Your task to perform on an android device: check battery use Image 0: 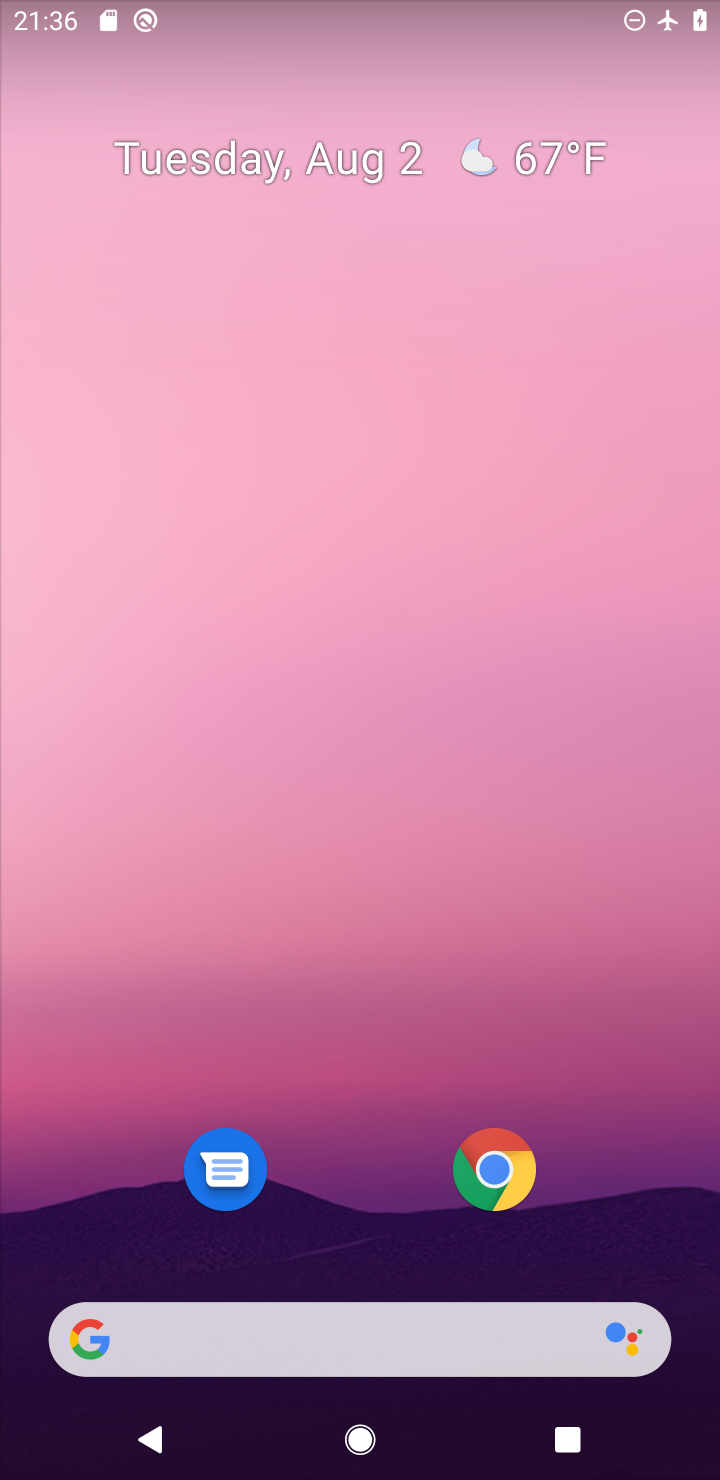
Step 0: drag from (352, 1269) to (367, 425)
Your task to perform on an android device: check battery use Image 1: 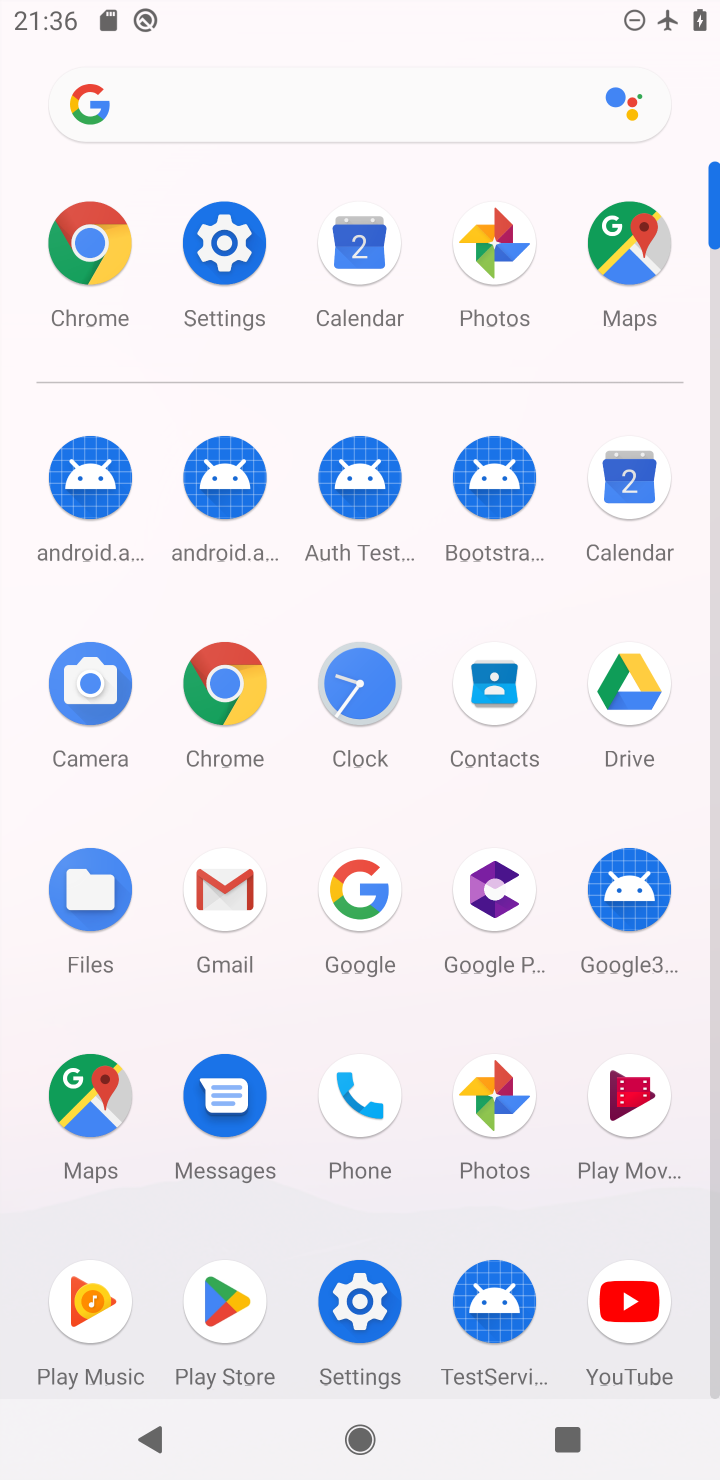
Step 1: click (218, 244)
Your task to perform on an android device: check battery use Image 2: 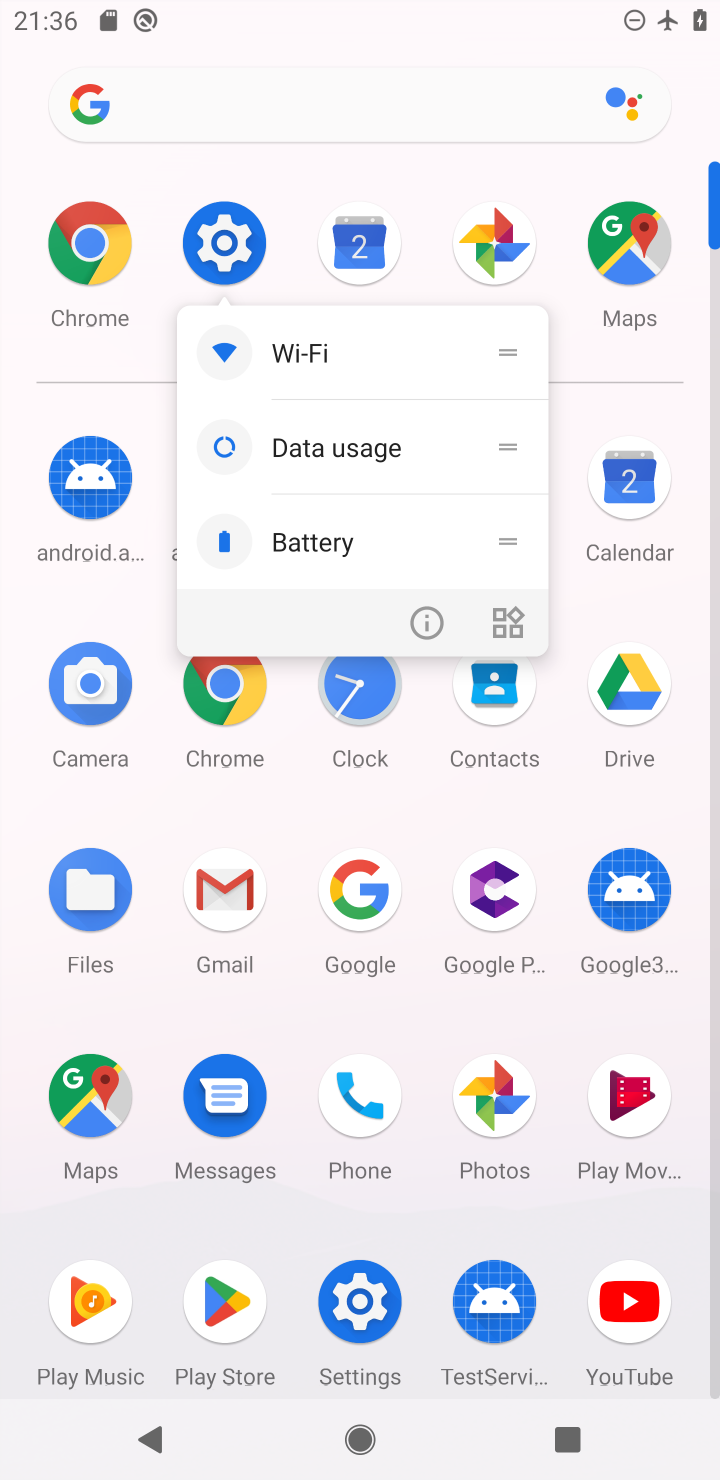
Step 2: click (218, 257)
Your task to perform on an android device: check battery use Image 3: 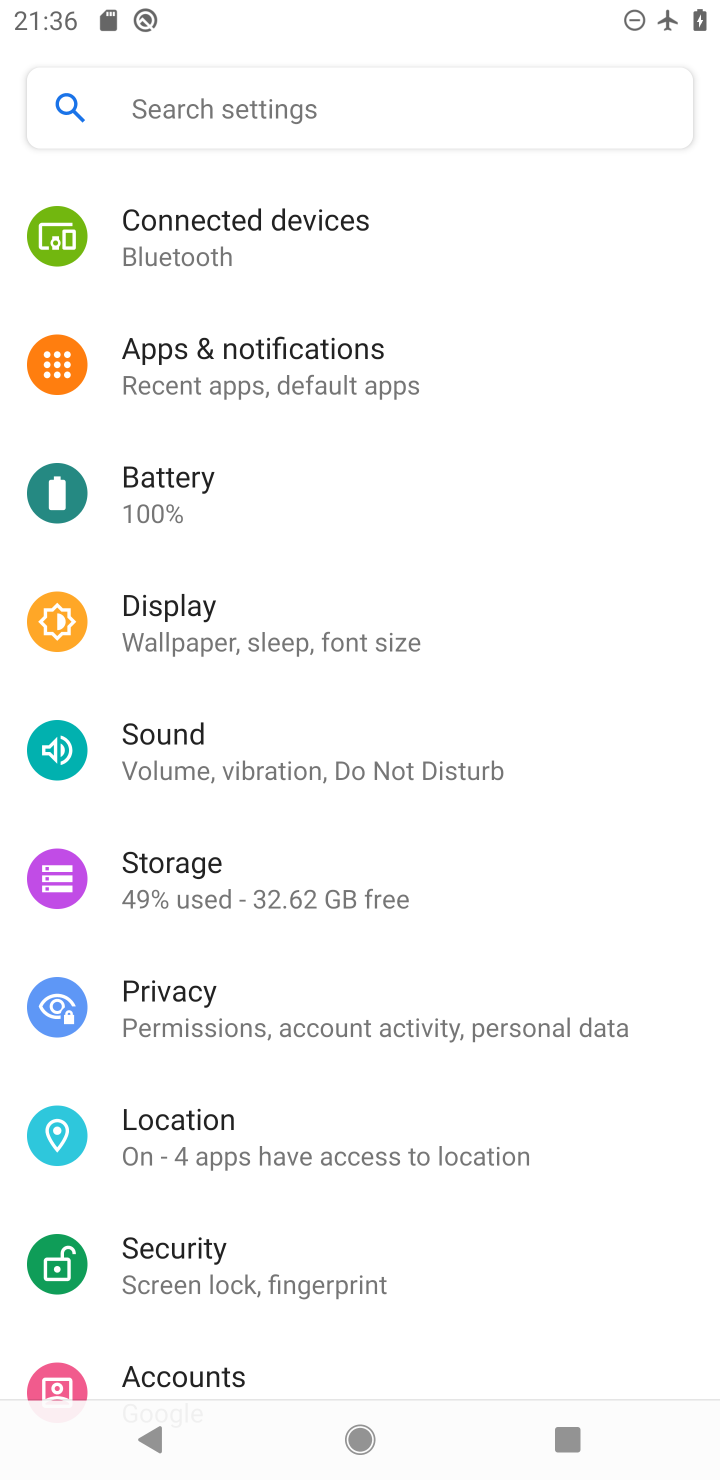
Step 3: click (145, 471)
Your task to perform on an android device: check battery use Image 4: 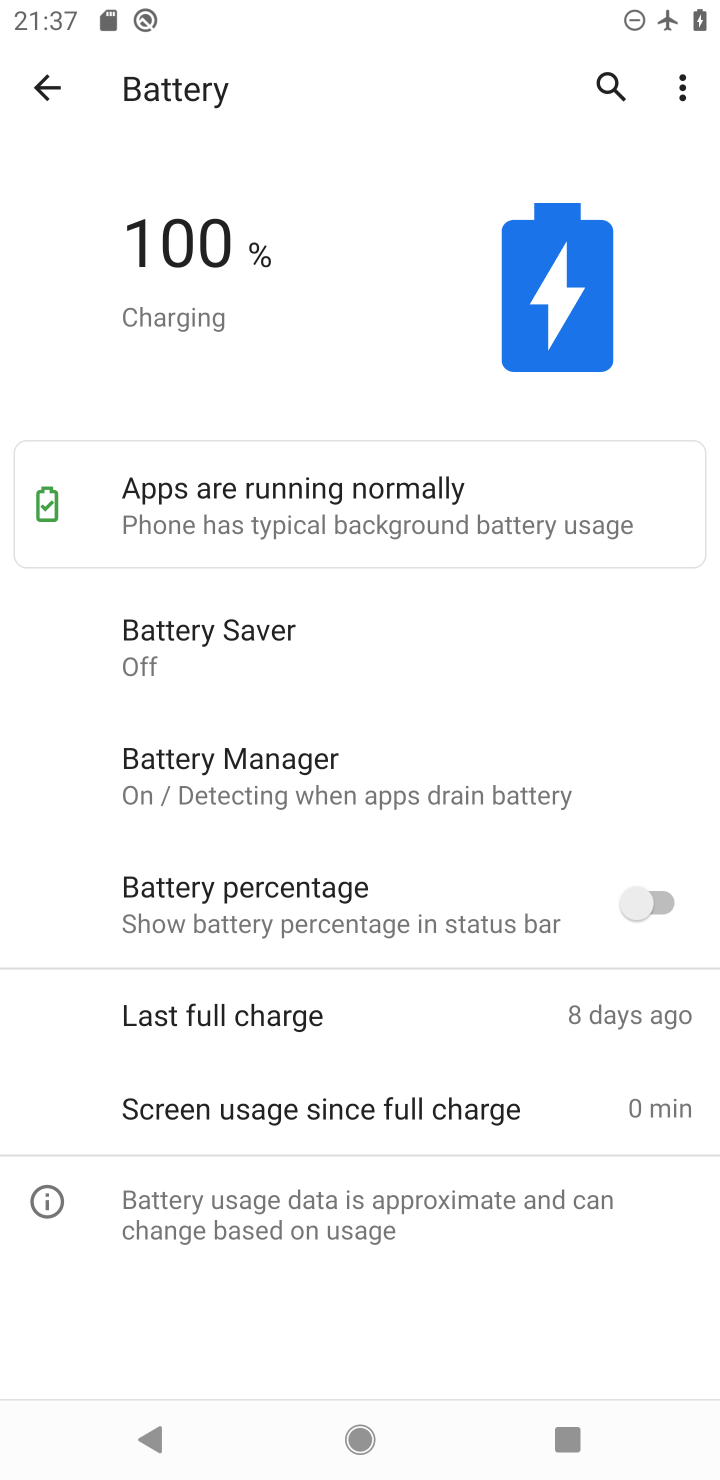
Step 4: click (678, 87)
Your task to perform on an android device: check battery use Image 5: 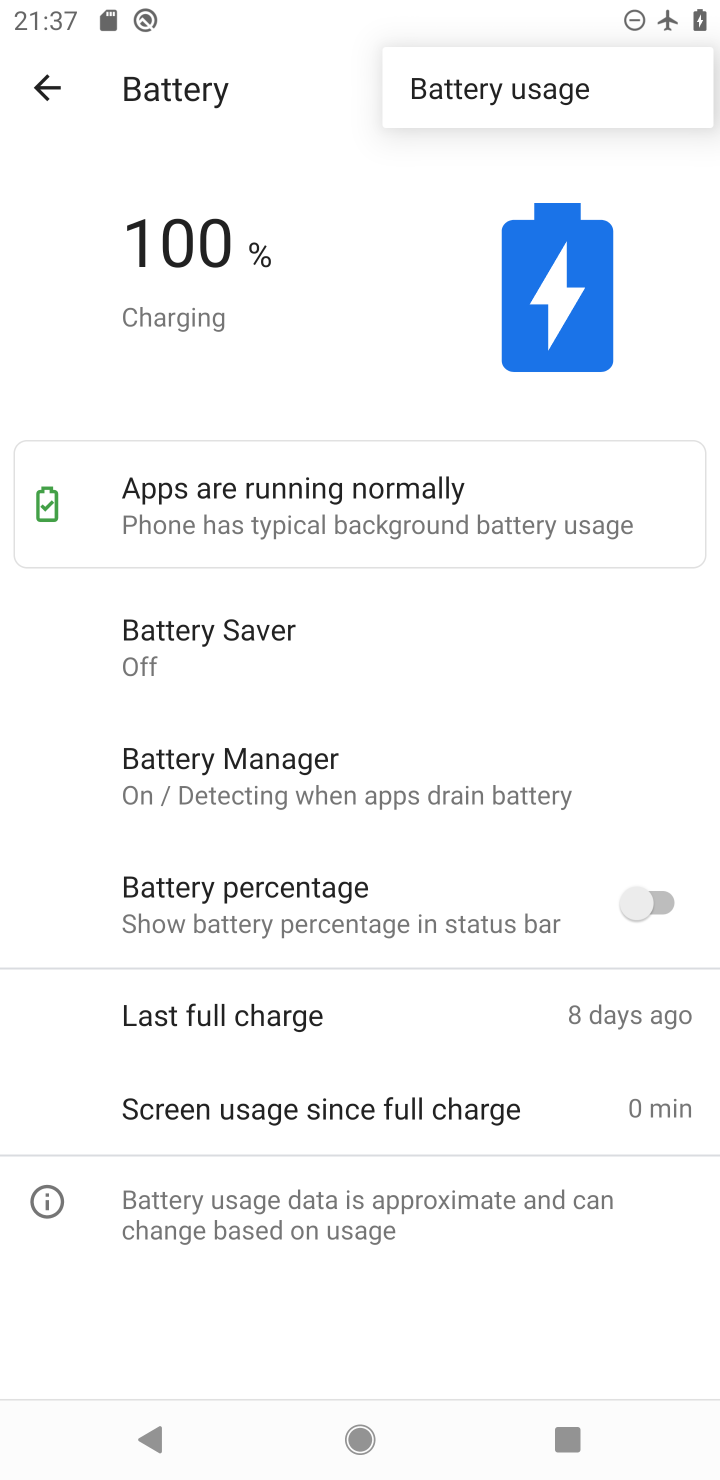
Step 5: click (458, 97)
Your task to perform on an android device: check battery use Image 6: 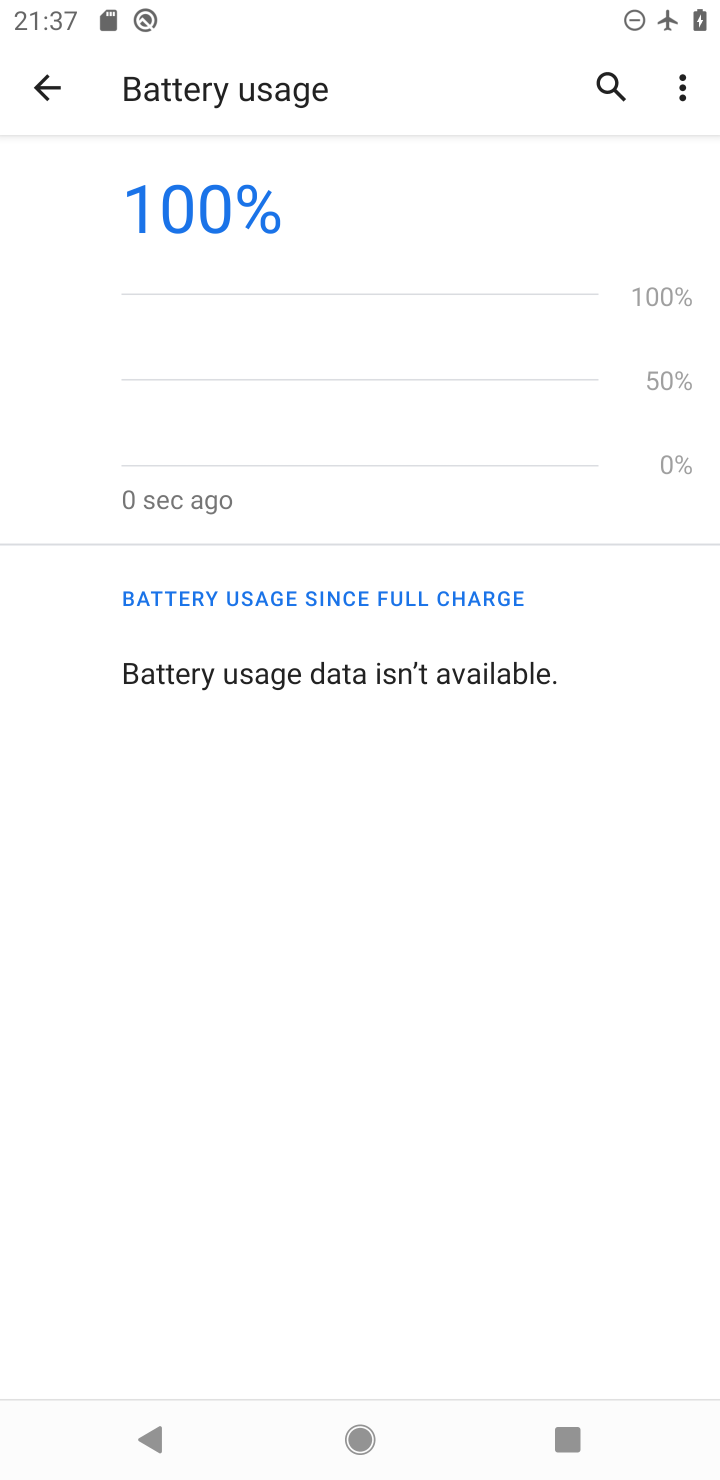
Step 6: task complete